Your task to perform on an android device: What's on my calendar today? Image 0: 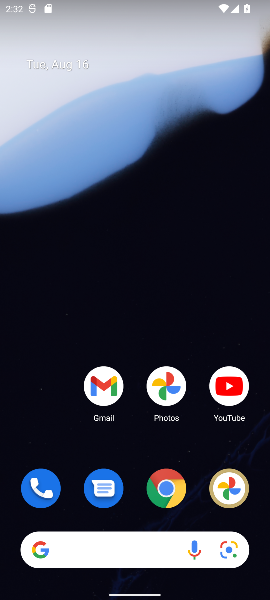
Step 0: click (205, 561)
Your task to perform on an android device: What's on my calendar today? Image 1: 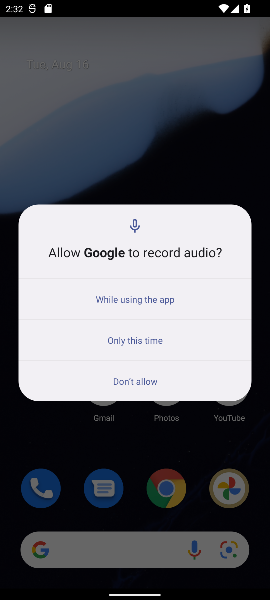
Step 1: click (142, 378)
Your task to perform on an android device: What's on my calendar today? Image 2: 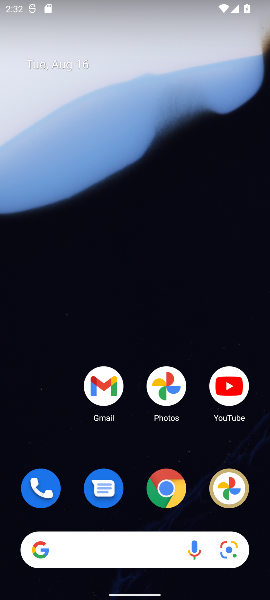
Step 2: task complete